Your task to perform on an android device: Search for pizza restaurants on Maps Image 0: 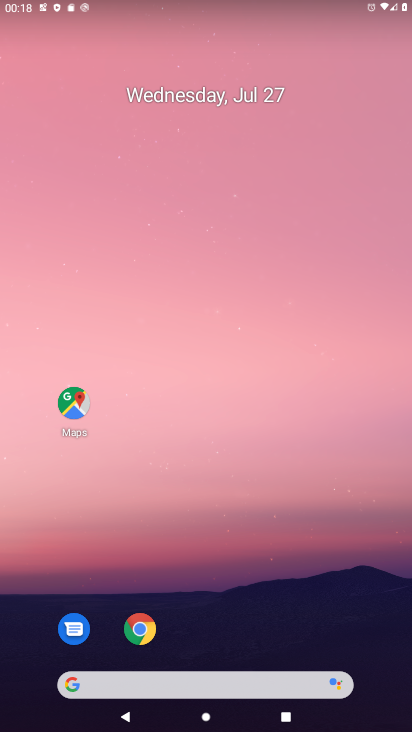
Step 0: click (73, 395)
Your task to perform on an android device: Search for pizza restaurants on Maps Image 1: 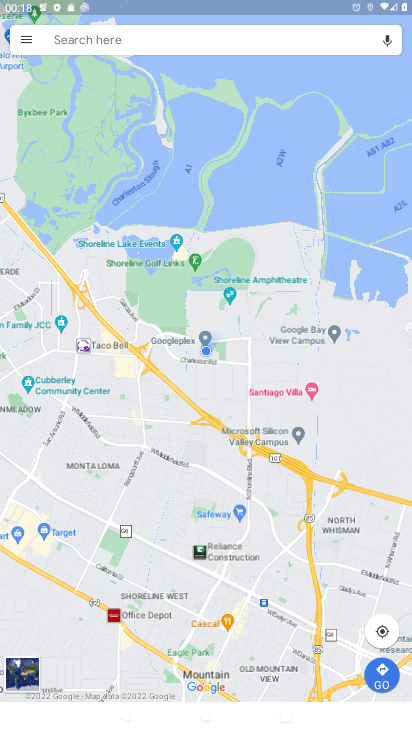
Step 1: click (221, 43)
Your task to perform on an android device: Search for pizza restaurants on Maps Image 2: 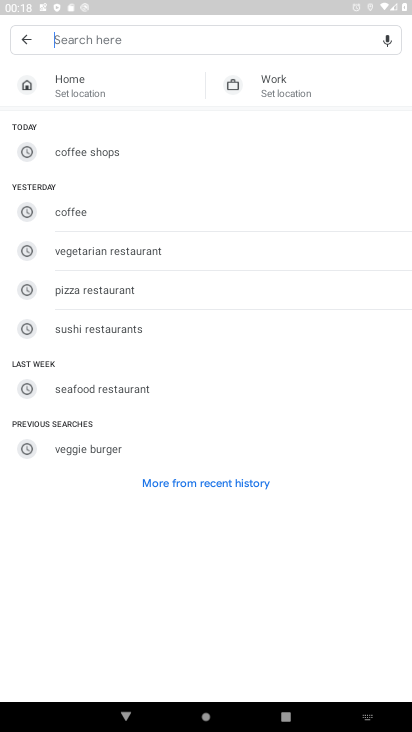
Step 2: click (182, 35)
Your task to perform on an android device: Search for pizza restaurants on Maps Image 3: 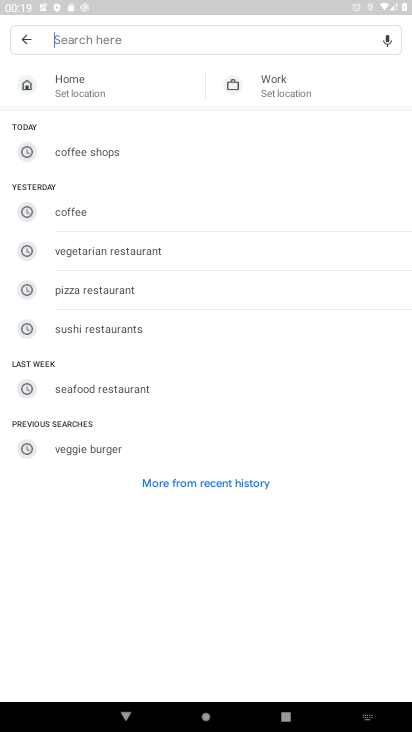
Step 3: type "Pizza restaurants"
Your task to perform on an android device: Search for pizza restaurants on Maps Image 4: 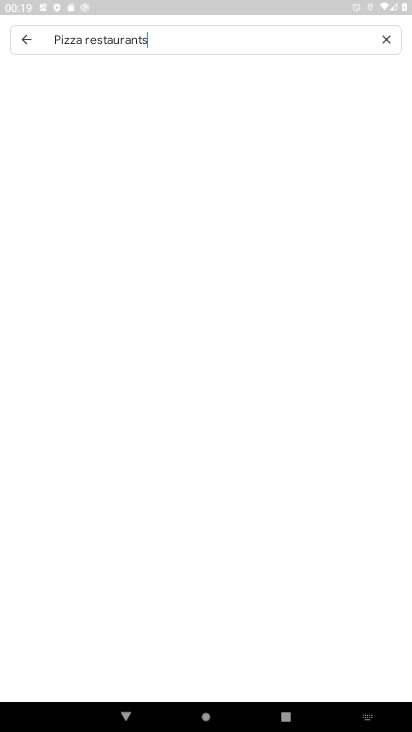
Step 4: type ""
Your task to perform on an android device: Search for pizza restaurants on Maps Image 5: 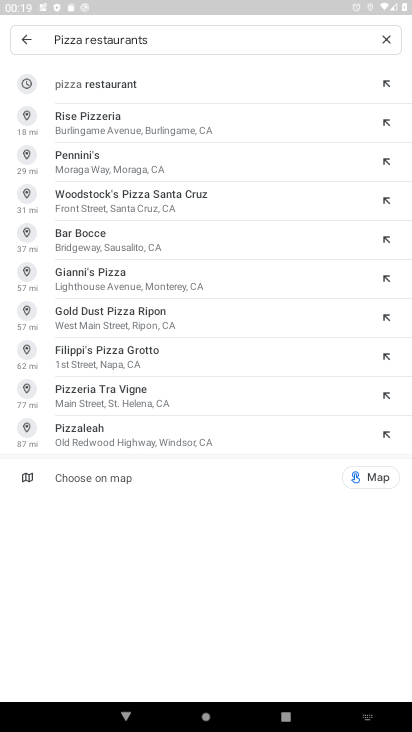
Step 5: click (74, 79)
Your task to perform on an android device: Search for pizza restaurants on Maps Image 6: 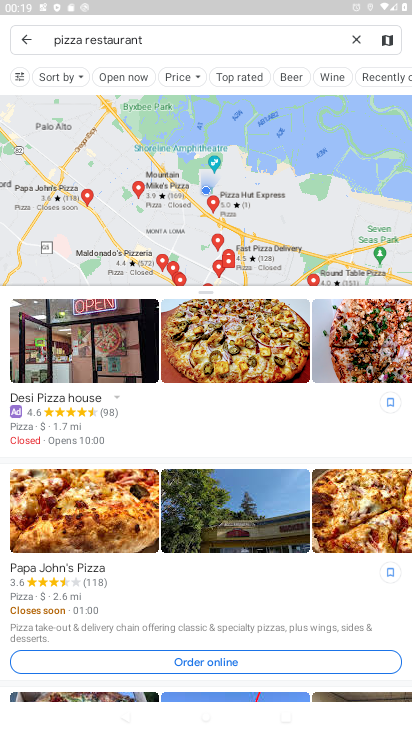
Step 6: task complete